Your task to perform on an android device: Open location settings Image 0: 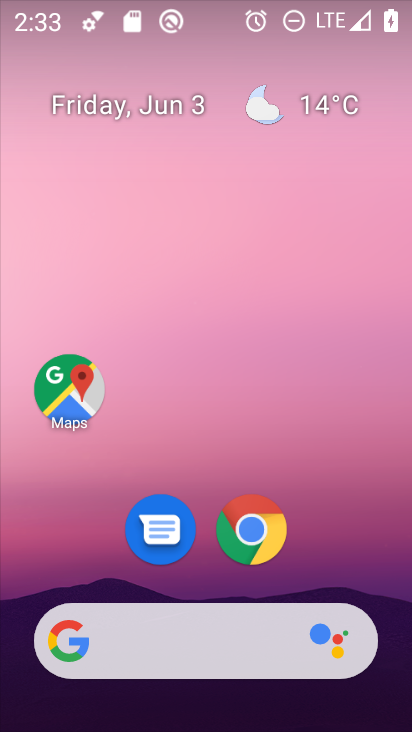
Step 0: drag from (355, 561) to (349, 253)
Your task to perform on an android device: Open location settings Image 1: 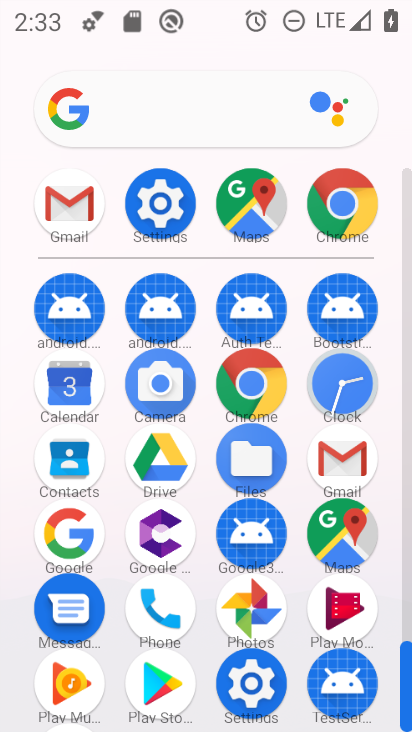
Step 1: click (172, 210)
Your task to perform on an android device: Open location settings Image 2: 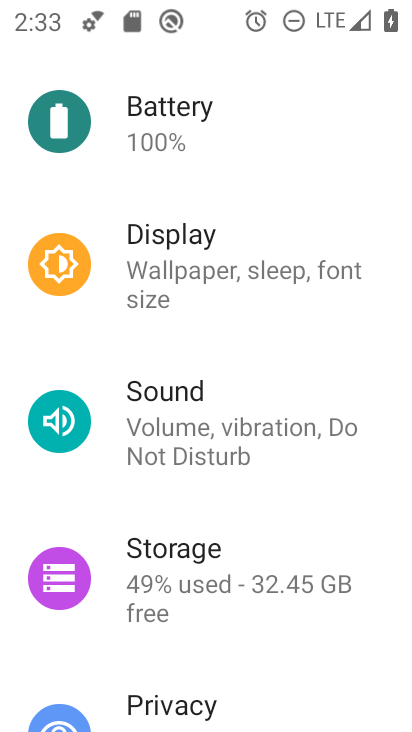
Step 2: drag from (319, 538) to (337, 323)
Your task to perform on an android device: Open location settings Image 3: 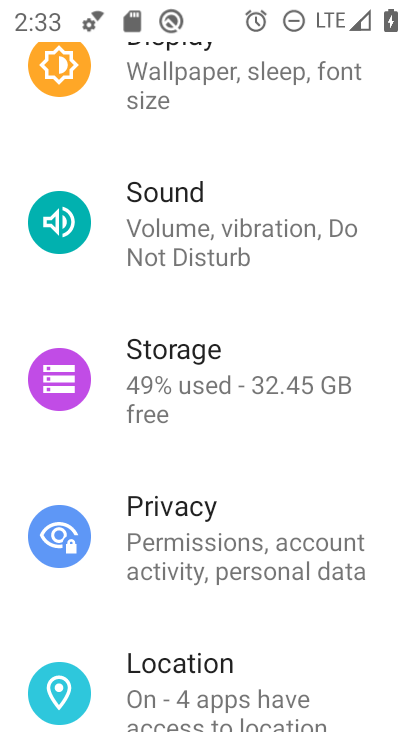
Step 3: drag from (326, 493) to (324, 330)
Your task to perform on an android device: Open location settings Image 4: 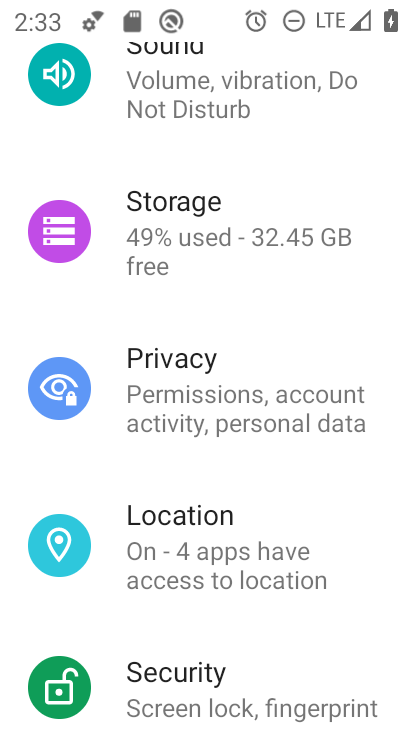
Step 4: drag from (369, 606) to (348, 458)
Your task to perform on an android device: Open location settings Image 5: 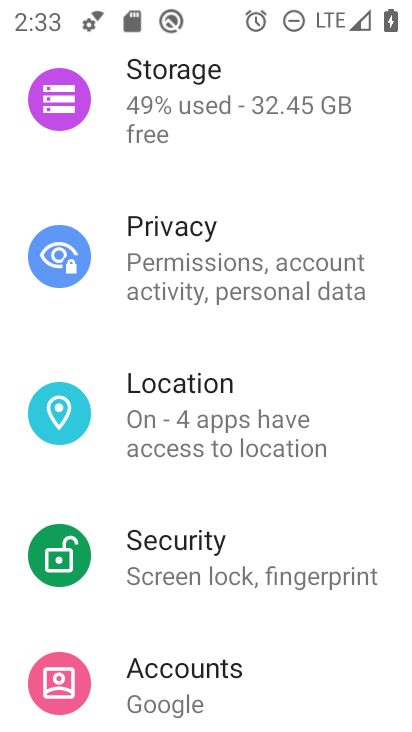
Step 5: drag from (353, 611) to (350, 477)
Your task to perform on an android device: Open location settings Image 6: 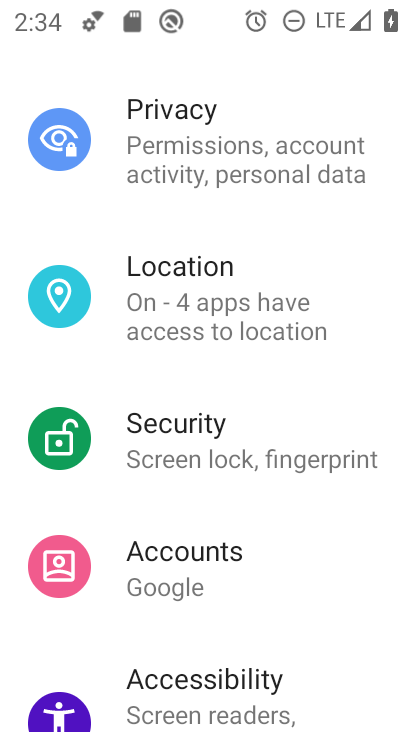
Step 6: drag from (363, 586) to (356, 470)
Your task to perform on an android device: Open location settings Image 7: 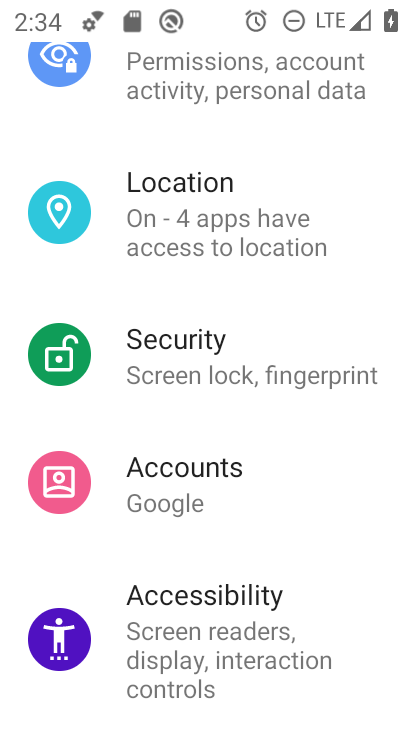
Step 7: drag from (367, 608) to (364, 263)
Your task to perform on an android device: Open location settings Image 8: 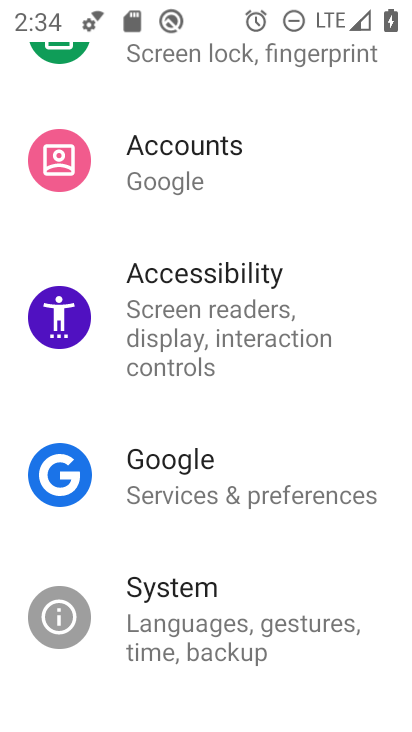
Step 8: drag from (361, 239) to (370, 441)
Your task to perform on an android device: Open location settings Image 9: 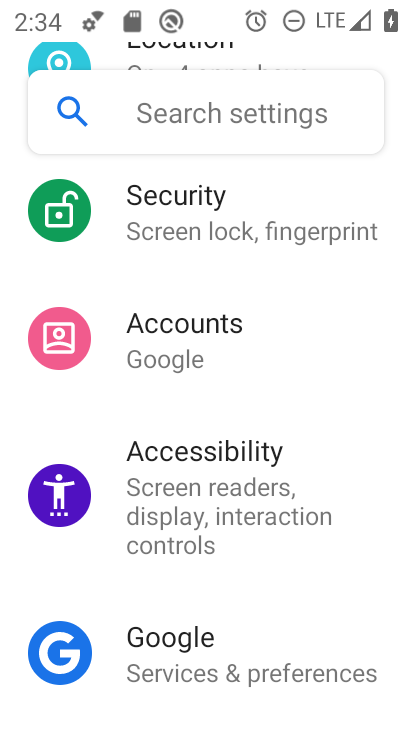
Step 9: drag from (355, 272) to (365, 418)
Your task to perform on an android device: Open location settings Image 10: 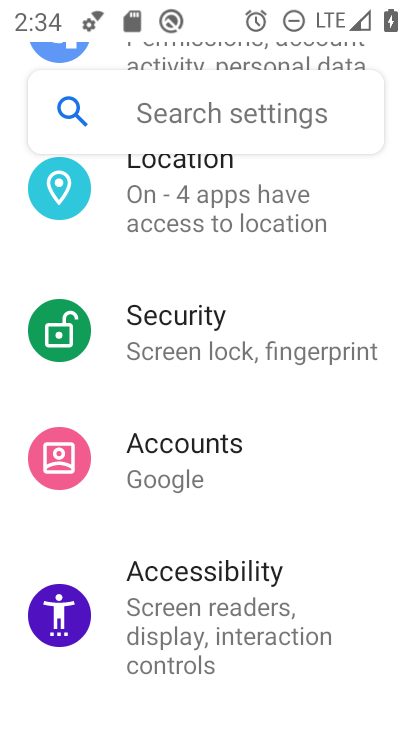
Step 10: drag from (363, 292) to (367, 462)
Your task to perform on an android device: Open location settings Image 11: 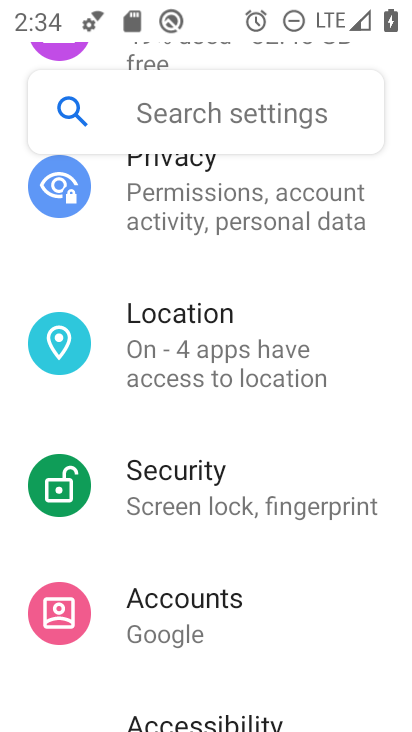
Step 11: drag from (348, 281) to (357, 460)
Your task to perform on an android device: Open location settings Image 12: 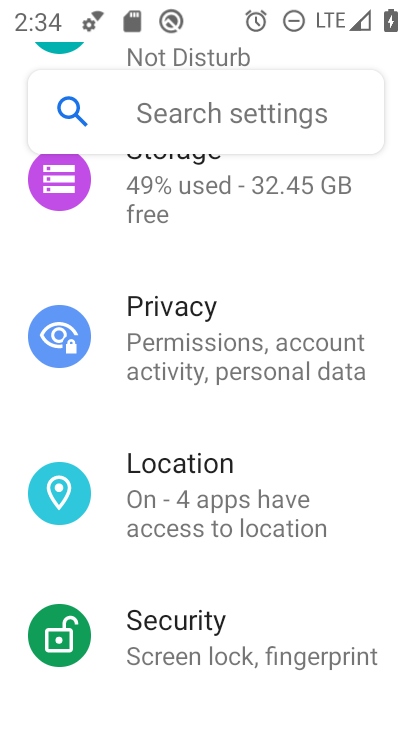
Step 12: click (277, 522)
Your task to perform on an android device: Open location settings Image 13: 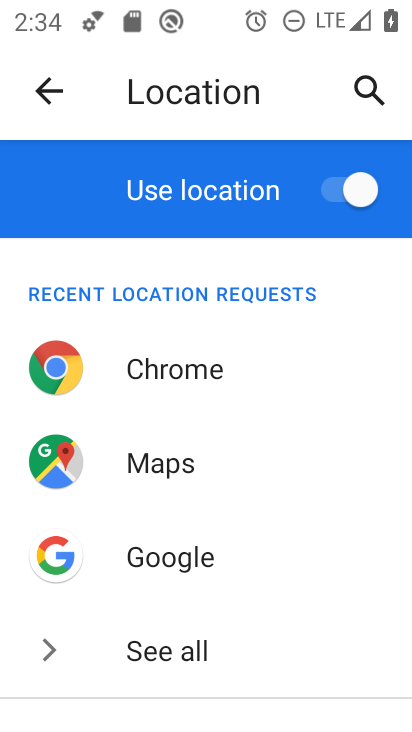
Step 13: task complete